Your task to perform on an android device: turn off location Image 0: 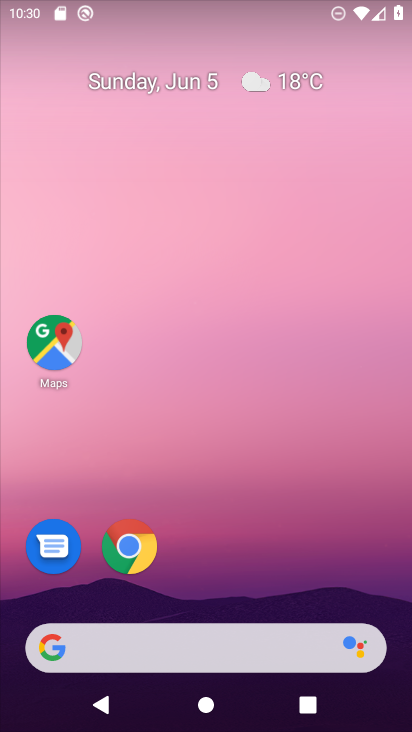
Step 0: drag from (272, 504) to (303, 37)
Your task to perform on an android device: turn off location Image 1: 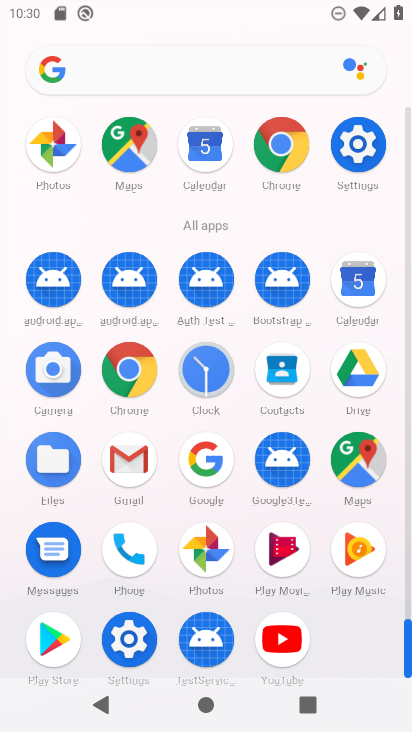
Step 1: click (360, 155)
Your task to perform on an android device: turn off location Image 2: 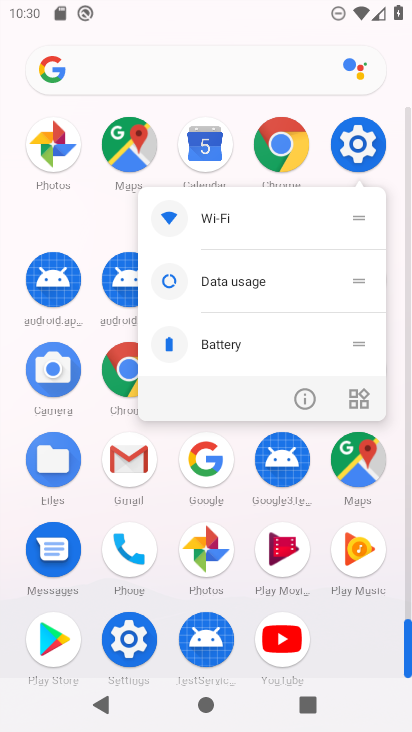
Step 2: click (308, 399)
Your task to perform on an android device: turn off location Image 3: 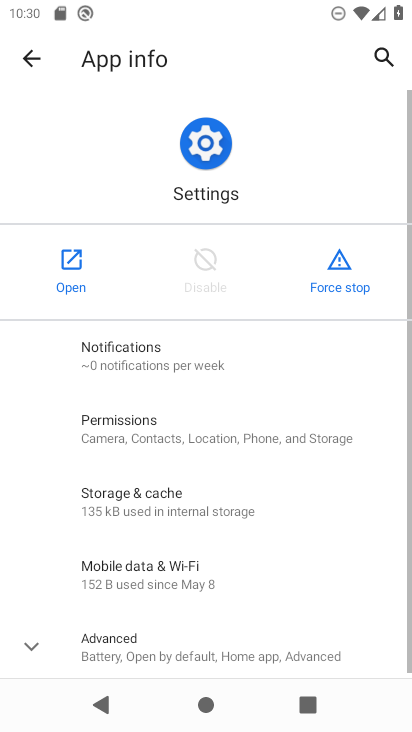
Step 3: click (81, 300)
Your task to perform on an android device: turn off location Image 4: 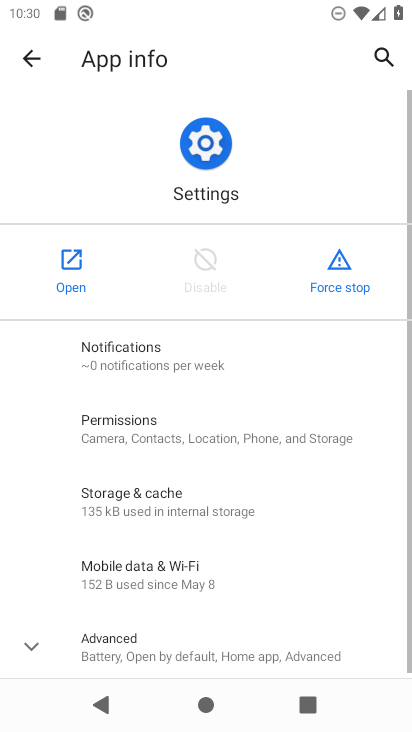
Step 4: click (81, 300)
Your task to perform on an android device: turn off location Image 5: 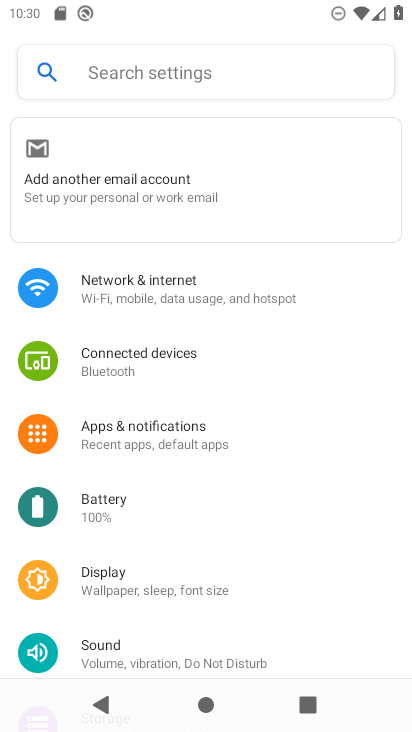
Step 5: drag from (257, 538) to (306, 180)
Your task to perform on an android device: turn off location Image 6: 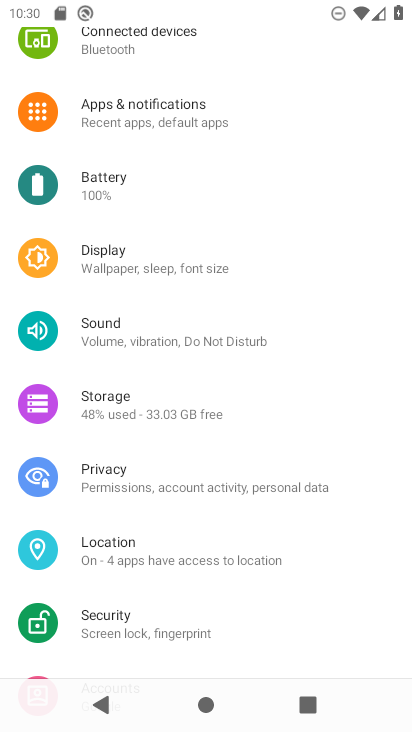
Step 6: click (140, 557)
Your task to perform on an android device: turn off location Image 7: 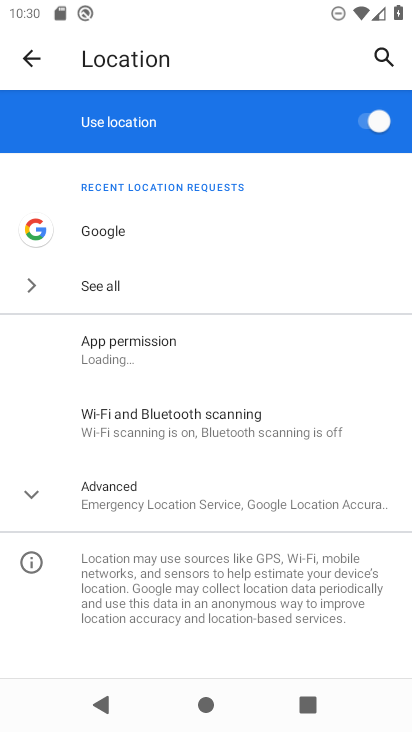
Step 7: click (376, 115)
Your task to perform on an android device: turn off location Image 8: 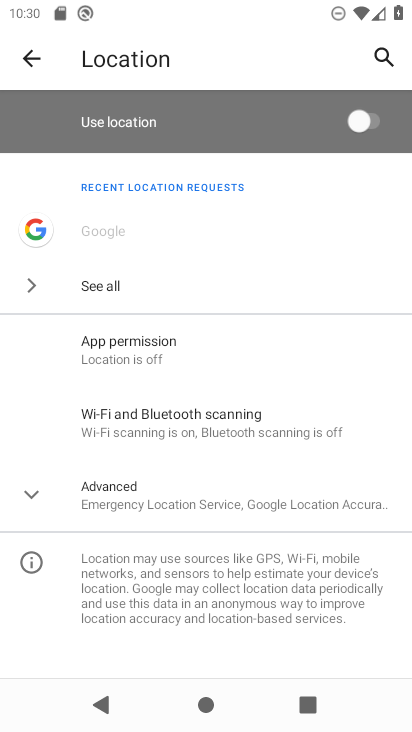
Step 8: task complete